Your task to perform on an android device: show emergency info Image 0: 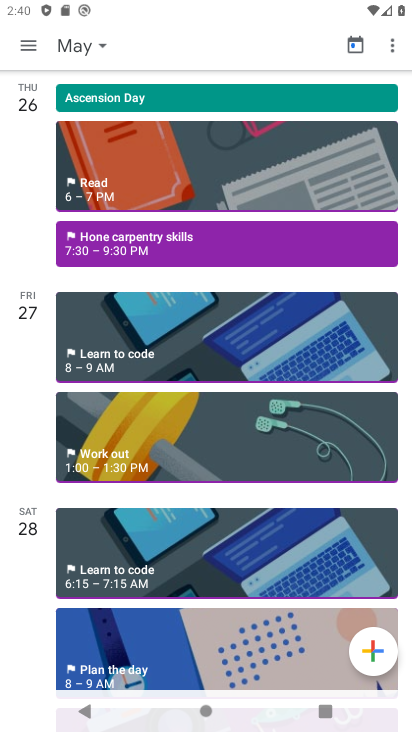
Step 0: press home button
Your task to perform on an android device: show emergency info Image 1: 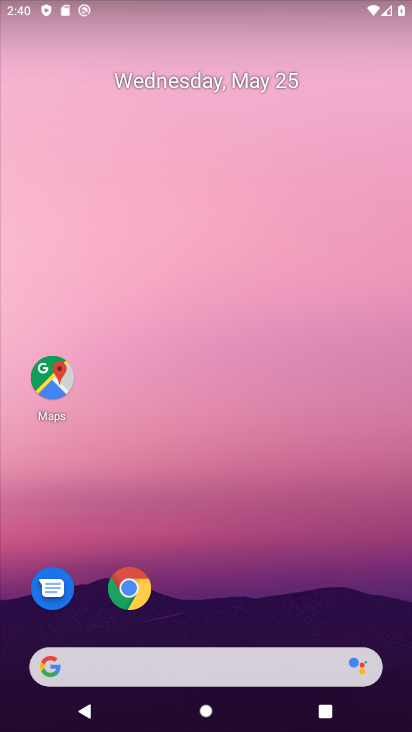
Step 1: drag from (317, 615) to (325, 124)
Your task to perform on an android device: show emergency info Image 2: 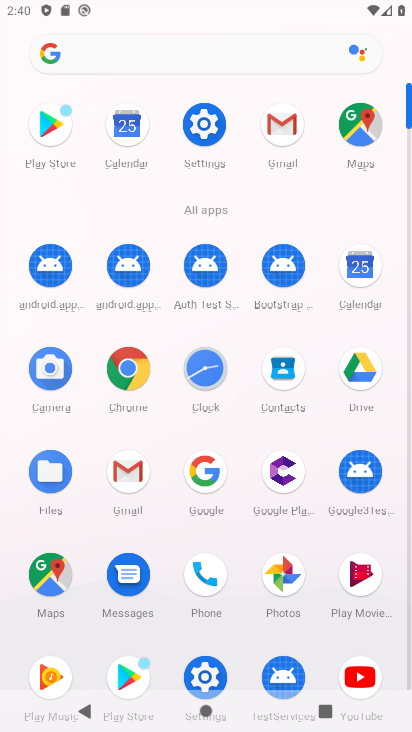
Step 2: click (205, 672)
Your task to perform on an android device: show emergency info Image 3: 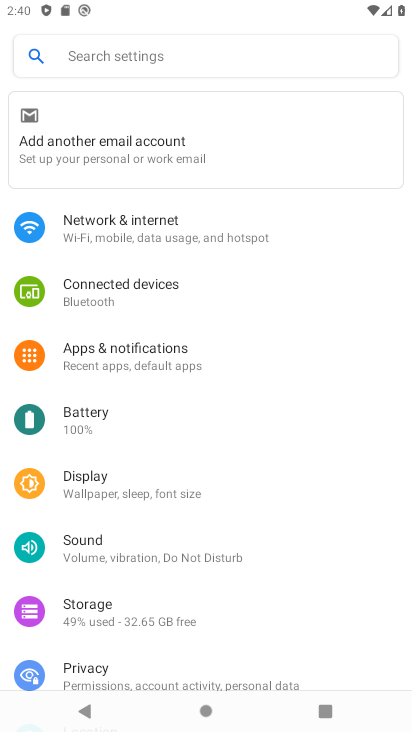
Step 3: drag from (193, 584) to (207, 237)
Your task to perform on an android device: show emergency info Image 4: 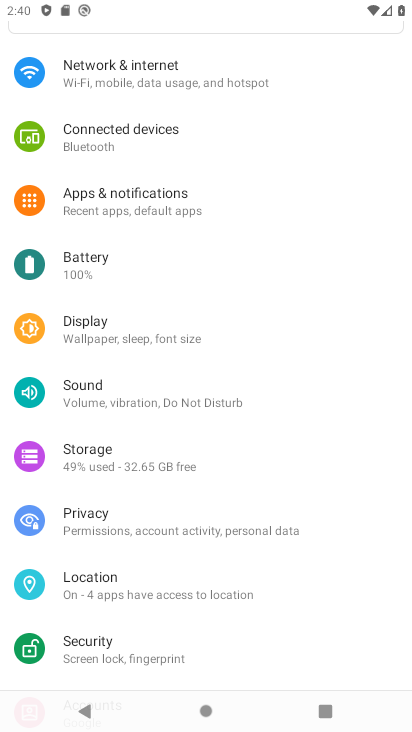
Step 4: drag from (201, 491) to (232, 273)
Your task to perform on an android device: show emergency info Image 5: 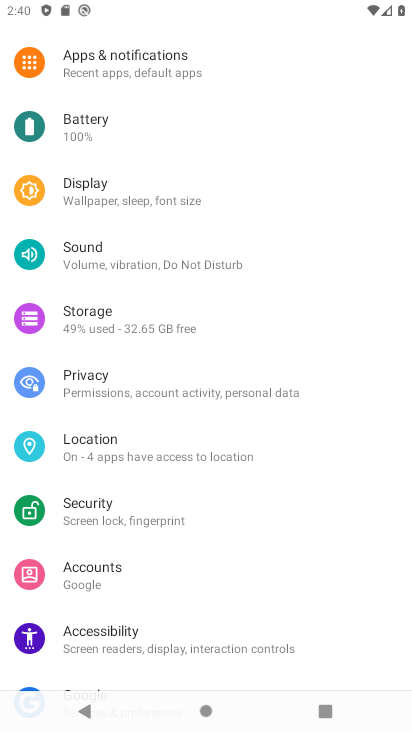
Step 5: drag from (239, 593) to (243, 269)
Your task to perform on an android device: show emergency info Image 6: 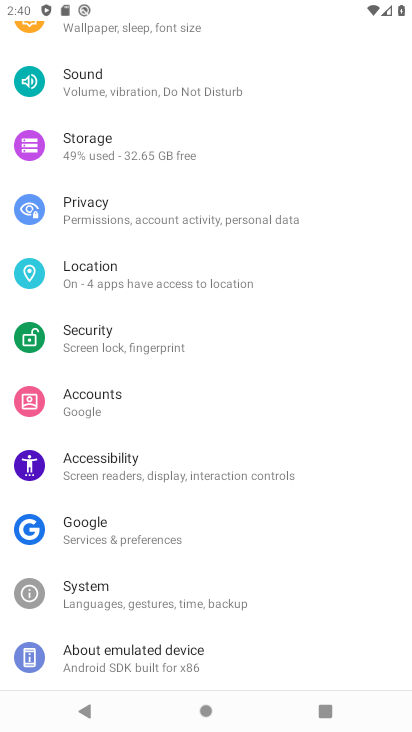
Step 6: drag from (202, 620) to (244, 348)
Your task to perform on an android device: show emergency info Image 7: 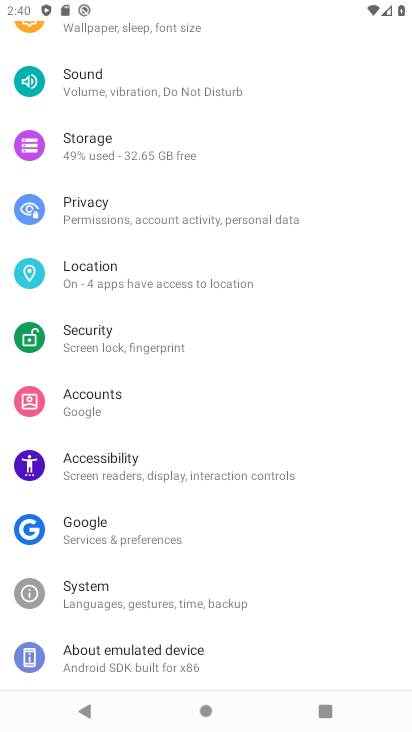
Step 7: click (190, 655)
Your task to perform on an android device: show emergency info Image 8: 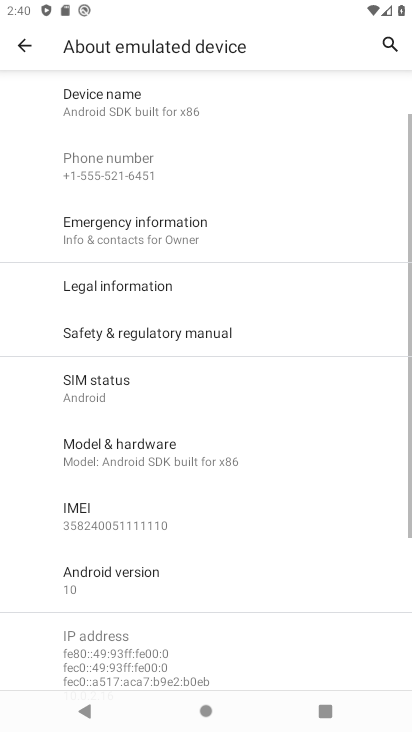
Step 8: click (206, 221)
Your task to perform on an android device: show emergency info Image 9: 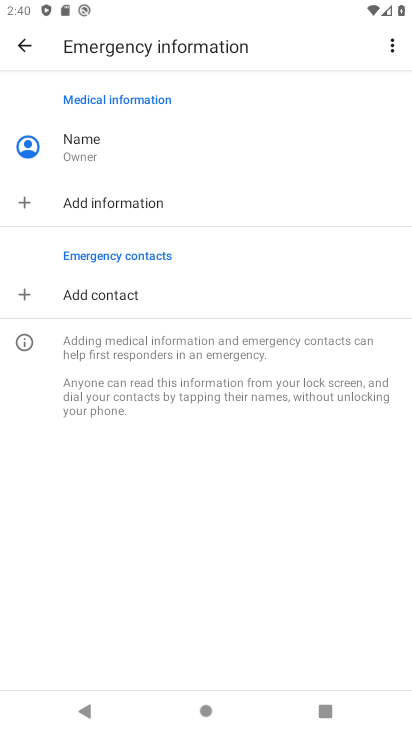
Step 9: task complete